Your task to perform on an android device: turn off javascript in the chrome app Image 0: 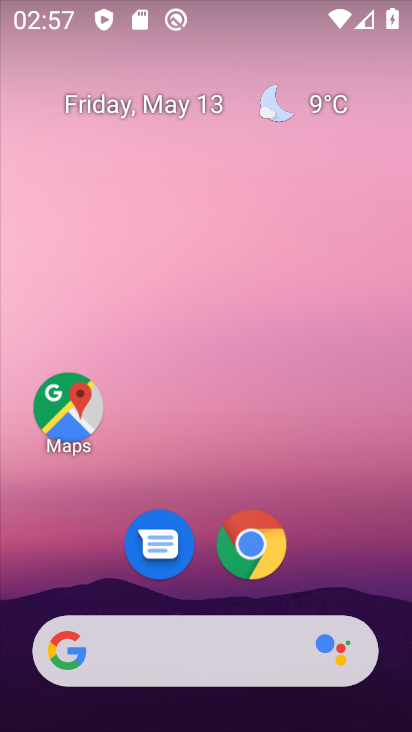
Step 0: drag from (360, 590) to (255, 42)
Your task to perform on an android device: turn off javascript in the chrome app Image 1: 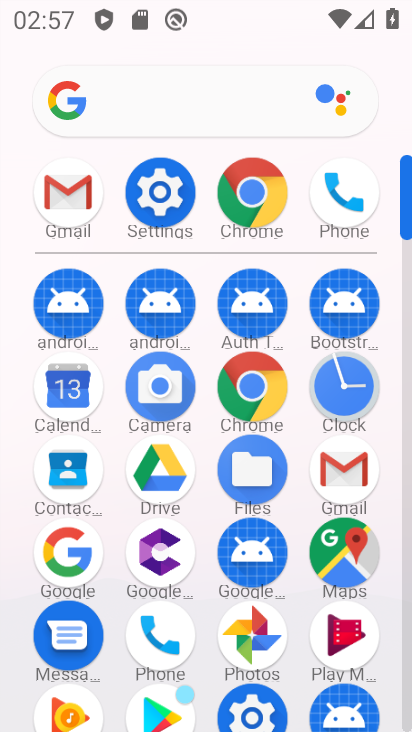
Step 1: drag from (0, 561) to (6, 245)
Your task to perform on an android device: turn off javascript in the chrome app Image 2: 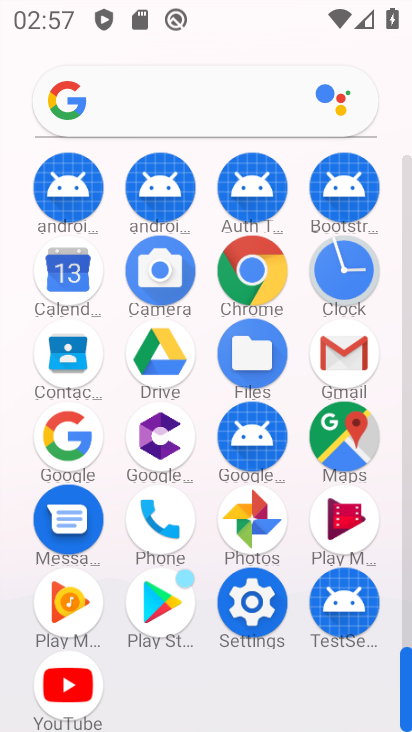
Step 2: click (250, 268)
Your task to perform on an android device: turn off javascript in the chrome app Image 3: 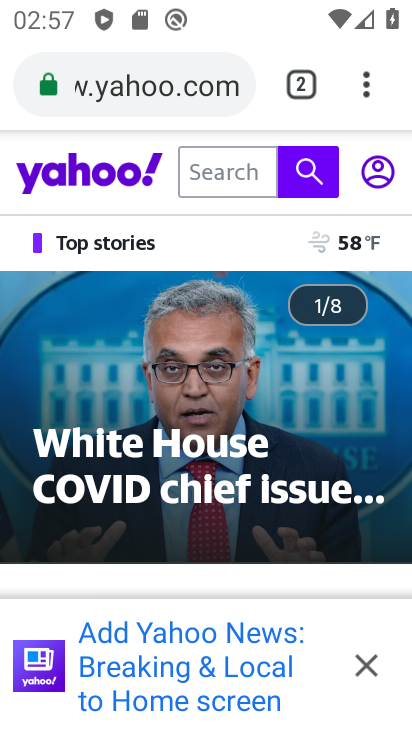
Step 3: drag from (364, 88) to (135, 582)
Your task to perform on an android device: turn off javascript in the chrome app Image 4: 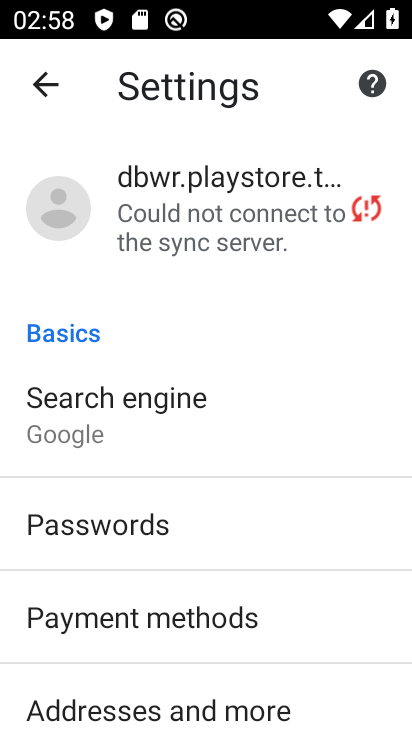
Step 4: drag from (258, 595) to (244, 204)
Your task to perform on an android device: turn off javascript in the chrome app Image 5: 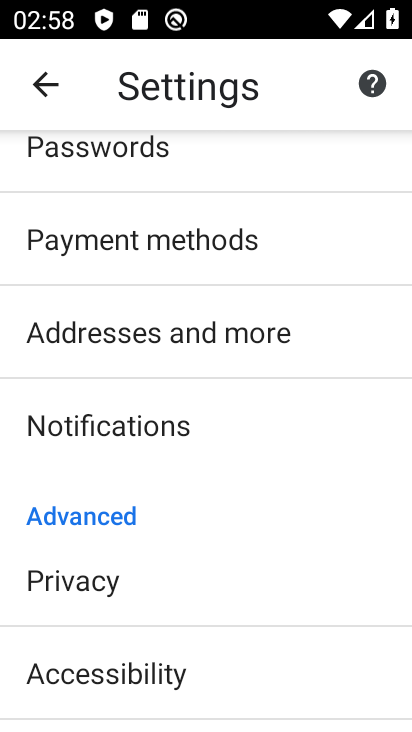
Step 5: drag from (258, 562) to (266, 191)
Your task to perform on an android device: turn off javascript in the chrome app Image 6: 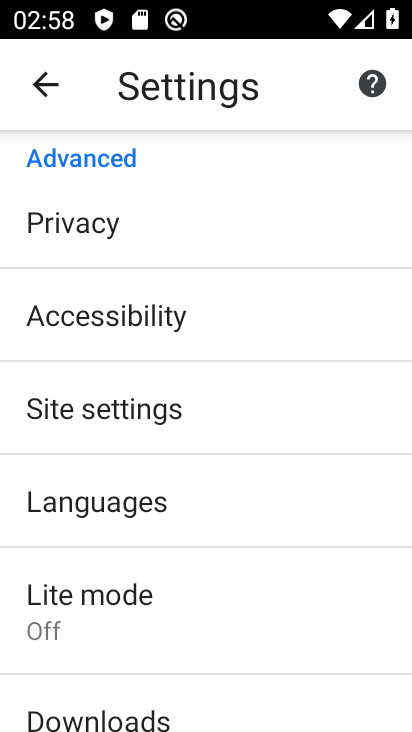
Step 6: drag from (300, 599) to (305, 251)
Your task to perform on an android device: turn off javascript in the chrome app Image 7: 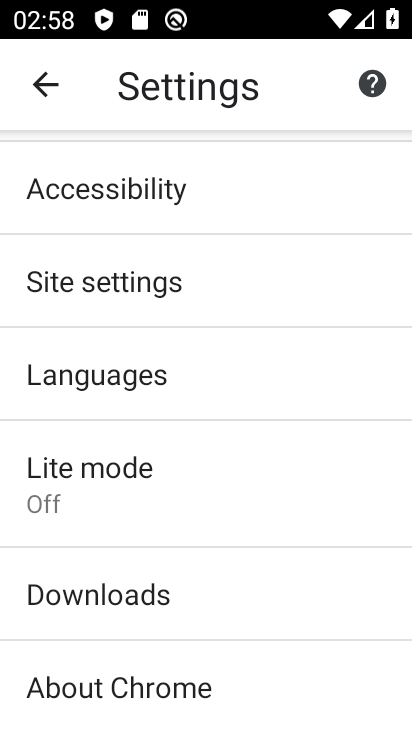
Step 7: click (190, 260)
Your task to perform on an android device: turn off javascript in the chrome app Image 8: 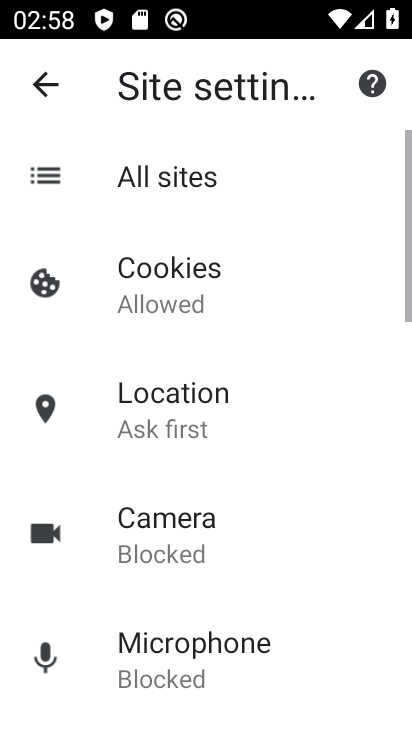
Step 8: drag from (257, 574) to (239, 103)
Your task to perform on an android device: turn off javascript in the chrome app Image 9: 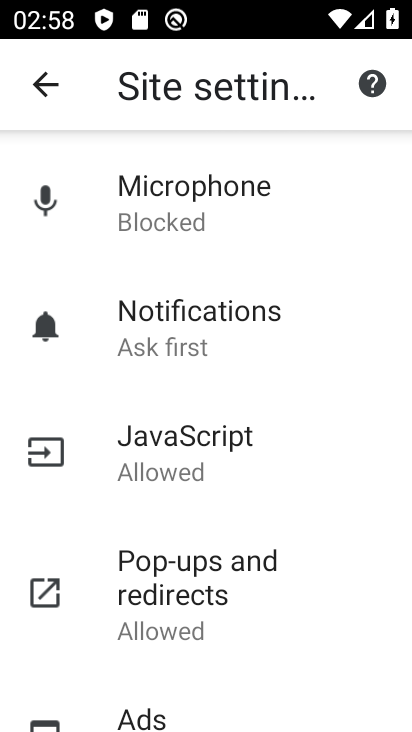
Step 9: click (247, 449)
Your task to perform on an android device: turn off javascript in the chrome app Image 10: 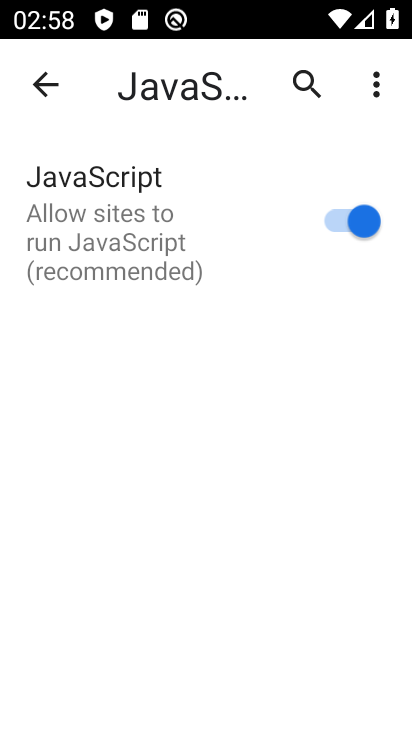
Step 10: click (345, 198)
Your task to perform on an android device: turn off javascript in the chrome app Image 11: 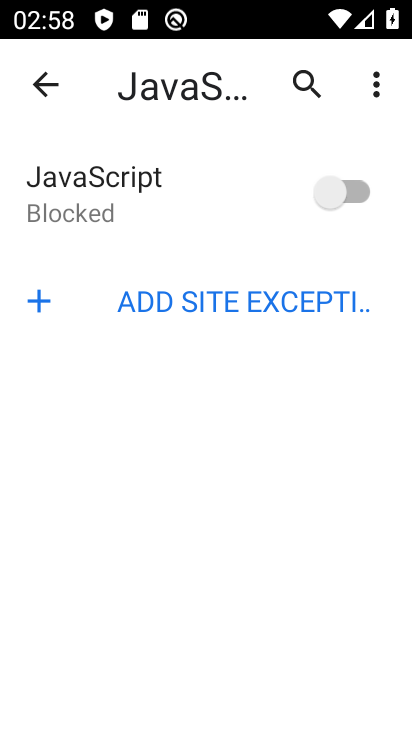
Step 11: task complete